Your task to perform on an android device: Go to Reddit.com Image 0: 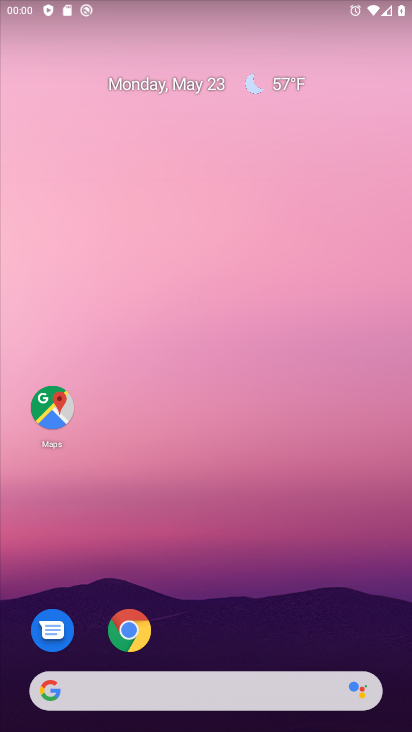
Step 0: click (132, 624)
Your task to perform on an android device: Go to Reddit.com Image 1: 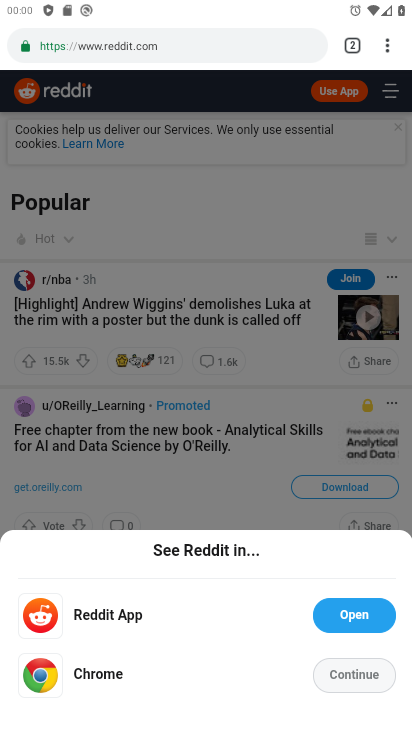
Step 1: task complete